Your task to perform on an android device: toggle data saver in the chrome app Image 0: 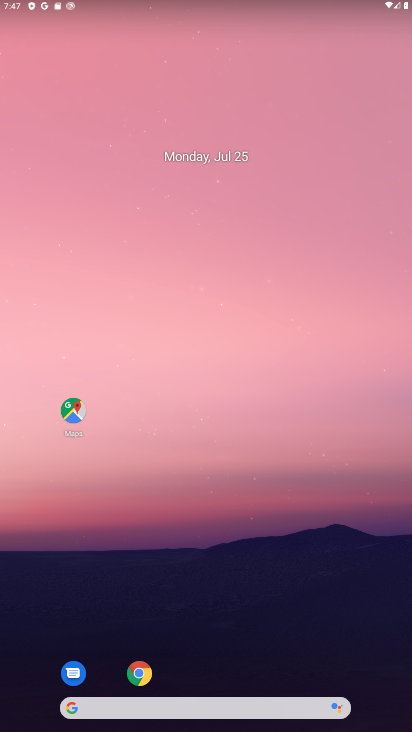
Step 0: click (151, 668)
Your task to perform on an android device: toggle data saver in the chrome app Image 1: 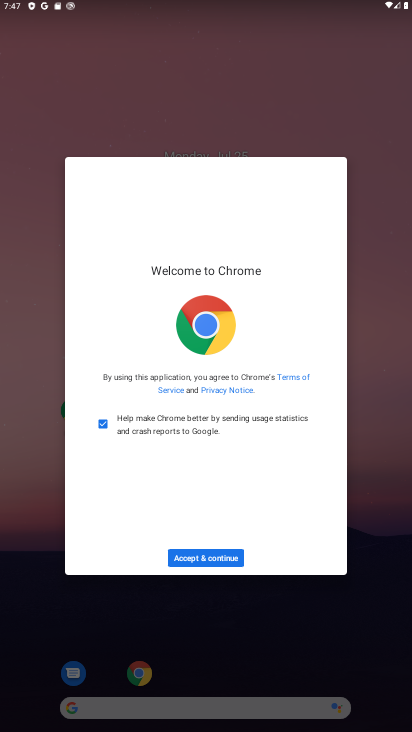
Step 1: click (201, 561)
Your task to perform on an android device: toggle data saver in the chrome app Image 2: 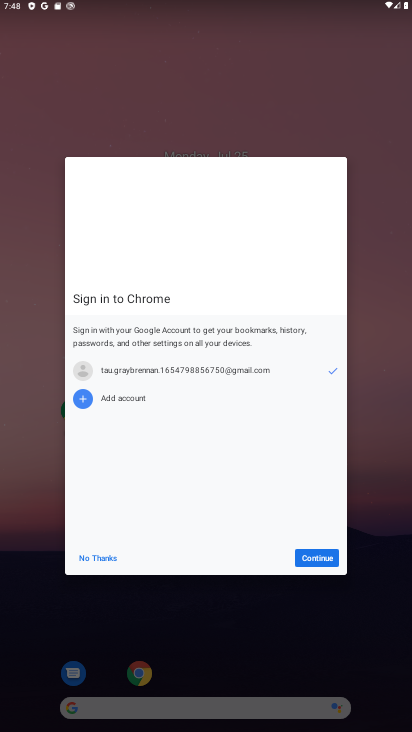
Step 2: click (299, 558)
Your task to perform on an android device: toggle data saver in the chrome app Image 3: 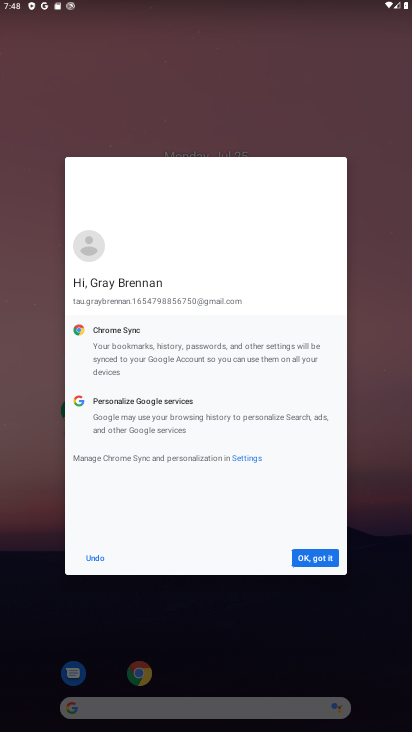
Step 3: click (299, 558)
Your task to perform on an android device: toggle data saver in the chrome app Image 4: 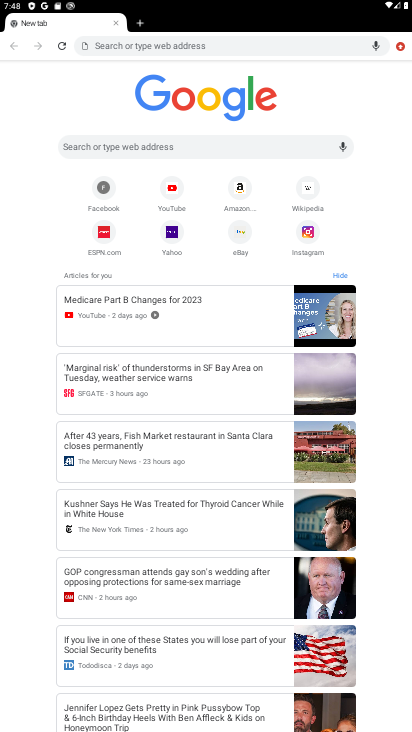
Step 4: click (396, 49)
Your task to perform on an android device: toggle data saver in the chrome app Image 5: 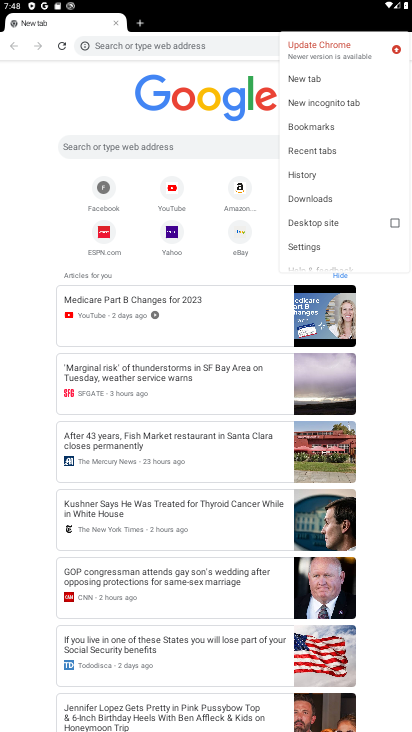
Step 5: click (334, 244)
Your task to perform on an android device: toggle data saver in the chrome app Image 6: 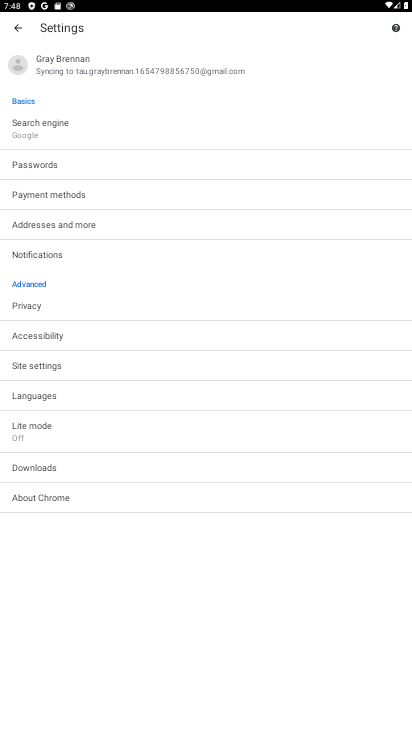
Step 6: click (80, 423)
Your task to perform on an android device: toggle data saver in the chrome app Image 7: 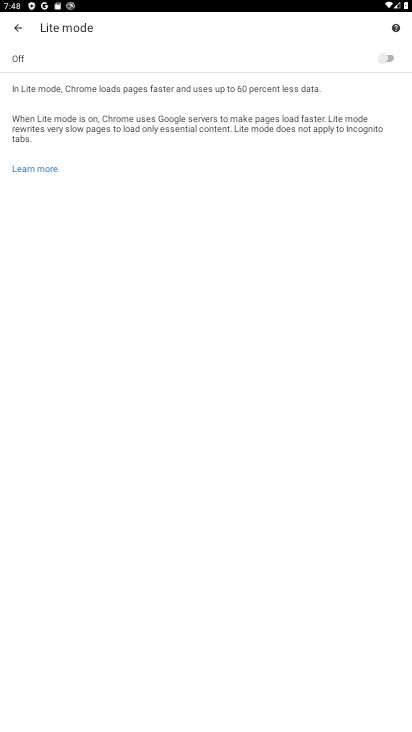
Step 7: click (381, 62)
Your task to perform on an android device: toggle data saver in the chrome app Image 8: 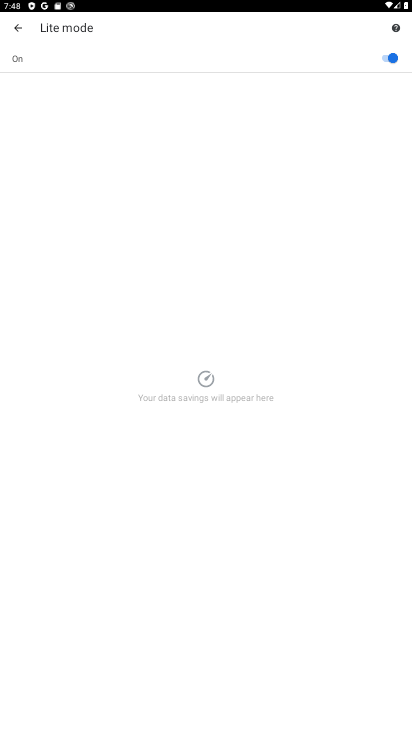
Step 8: task complete